Your task to perform on an android device: remove spam from my inbox in the gmail app Image 0: 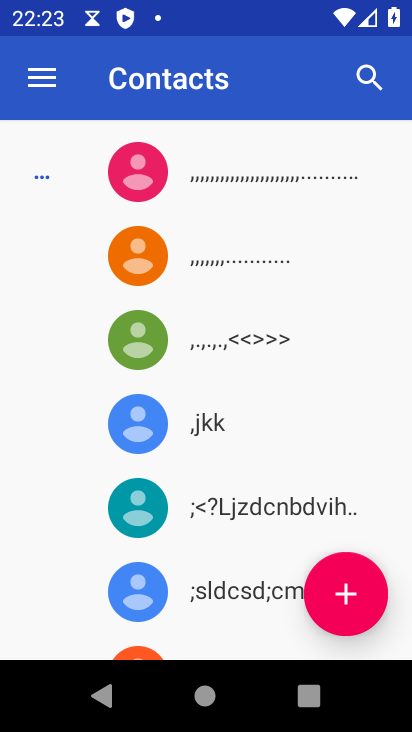
Step 0: press home button
Your task to perform on an android device: remove spam from my inbox in the gmail app Image 1: 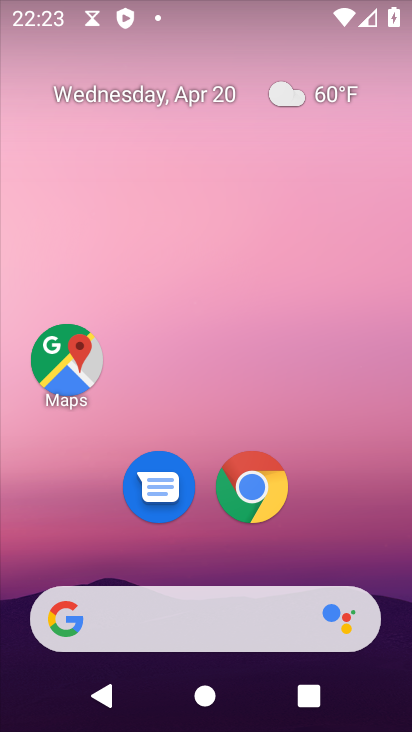
Step 1: drag from (38, 581) to (276, 187)
Your task to perform on an android device: remove spam from my inbox in the gmail app Image 2: 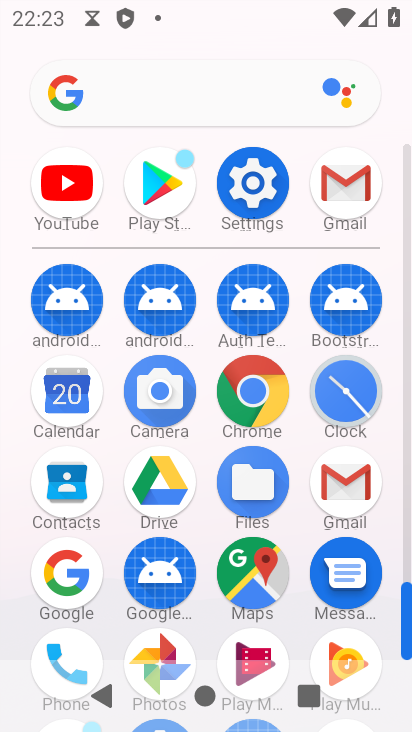
Step 2: click (332, 500)
Your task to perform on an android device: remove spam from my inbox in the gmail app Image 3: 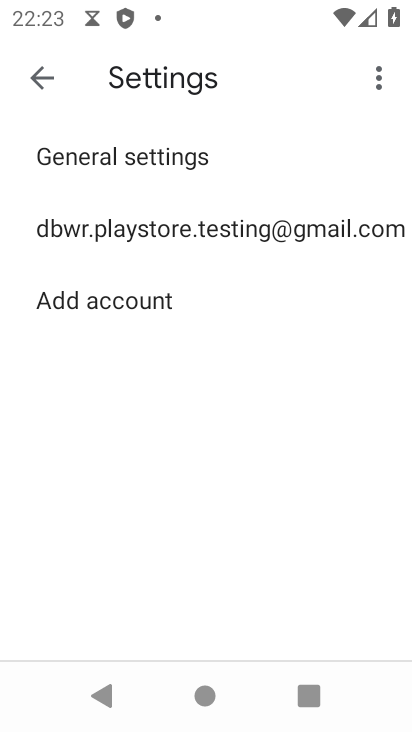
Step 3: click (26, 75)
Your task to perform on an android device: remove spam from my inbox in the gmail app Image 4: 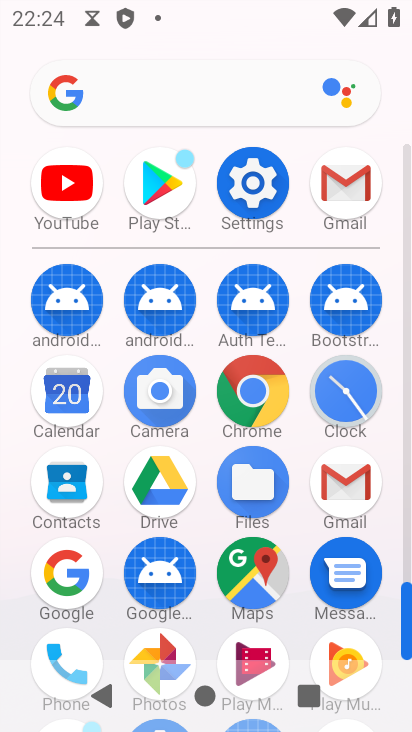
Step 4: click (338, 496)
Your task to perform on an android device: remove spam from my inbox in the gmail app Image 5: 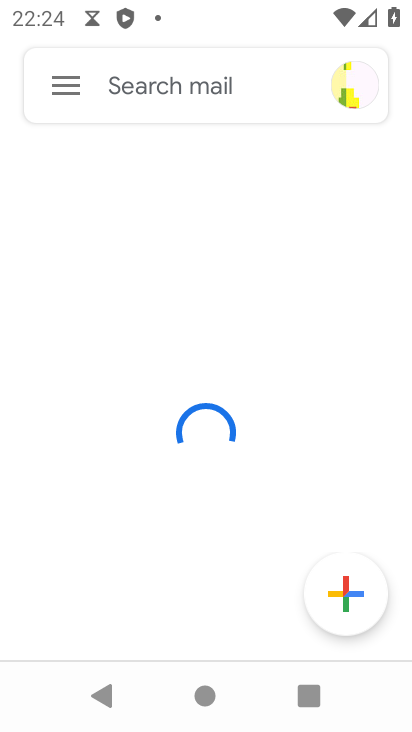
Step 5: click (71, 87)
Your task to perform on an android device: remove spam from my inbox in the gmail app Image 6: 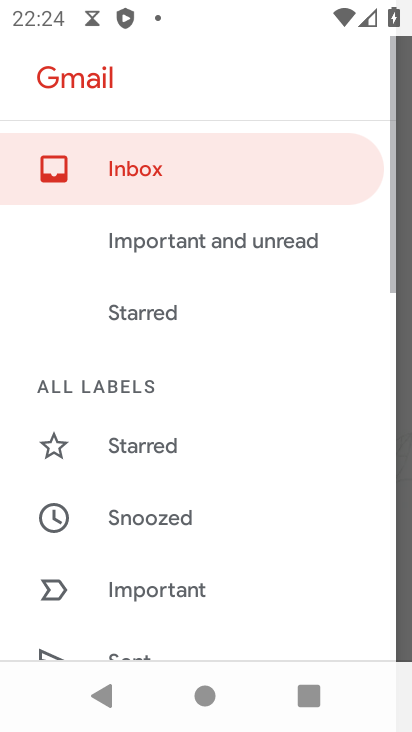
Step 6: drag from (192, 629) to (260, 345)
Your task to perform on an android device: remove spam from my inbox in the gmail app Image 7: 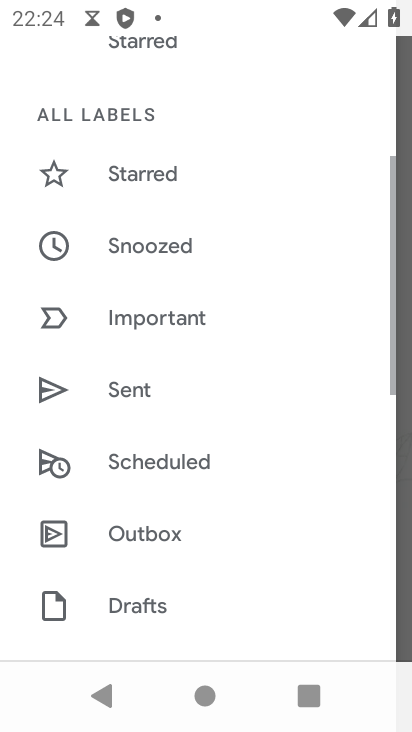
Step 7: drag from (219, 581) to (261, 294)
Your task to perform on an android device: remove spam from my inbox in the gmail app Image 8: 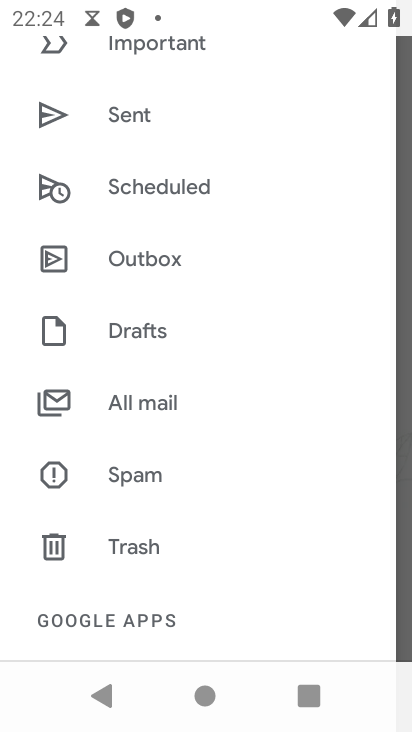
Step 8: drag from (227, 537) to (262, 280)
Your task to perform on an android device: remove spam from my inbox in the gmail app Image 9: 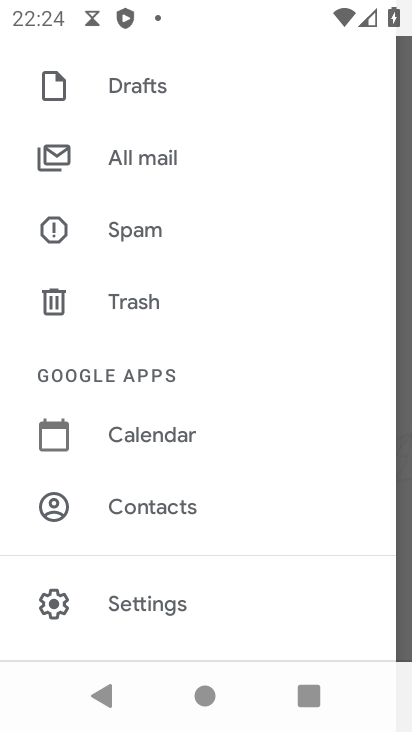
Step 9: drag from (258, 187) to (215, 592)
Your task to perform on an android device: remove spam from my inbox in the gmail app Image 10: 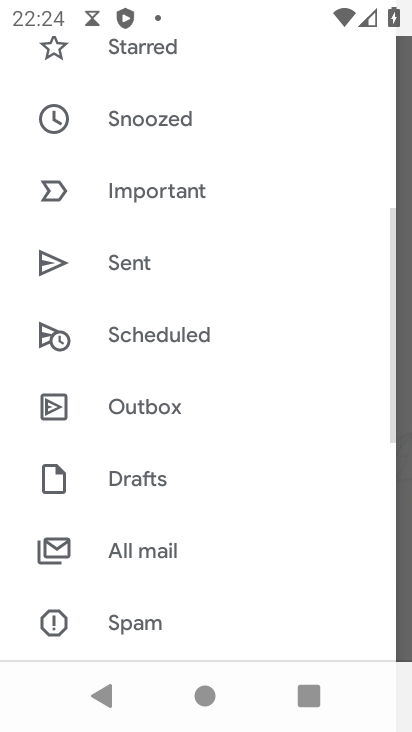
Step 10: drag from (237, 262) to (193, 554)
Your task to perform on an android device: remove spam from my inbox in the gmail app Image 11: 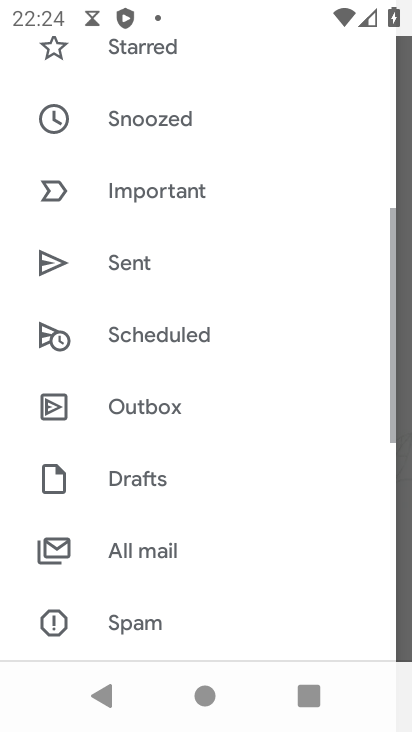
Step 11: drag from (235, 170) to (209, 480)
Your task to perform on an android device: remove spam from my inbox in the gmail app Image 12: 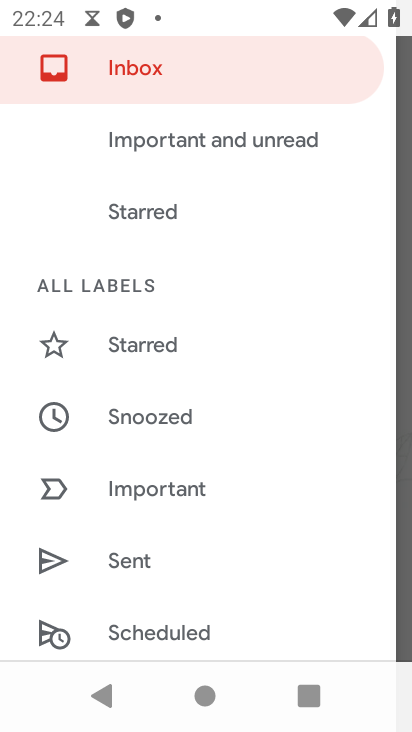
Step 12: drag from (213, 185) to (191, 550)
Your task to perform on an android device: remove spam from my inbox in the gmail app Image 13: 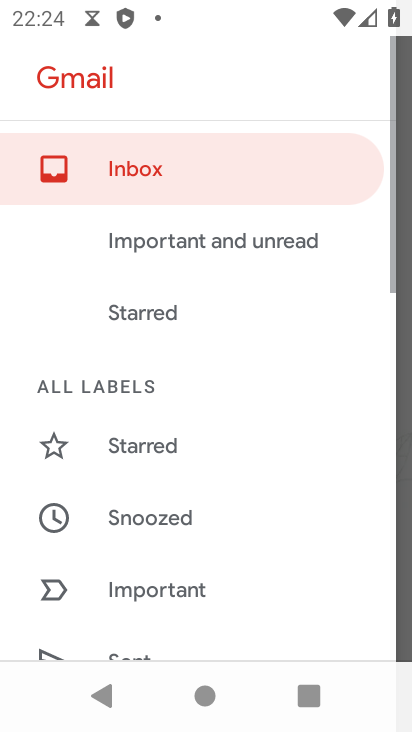
Step 13: click (179, 169)
Your task to perform on an android device: remove spam from my inbox in the gmail app Image 14: 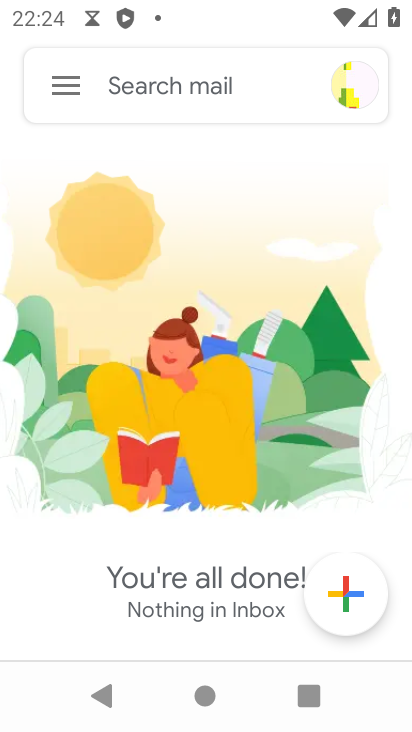
Step 14: task complete